Your task to perform on an android device: Check the news Image 0: 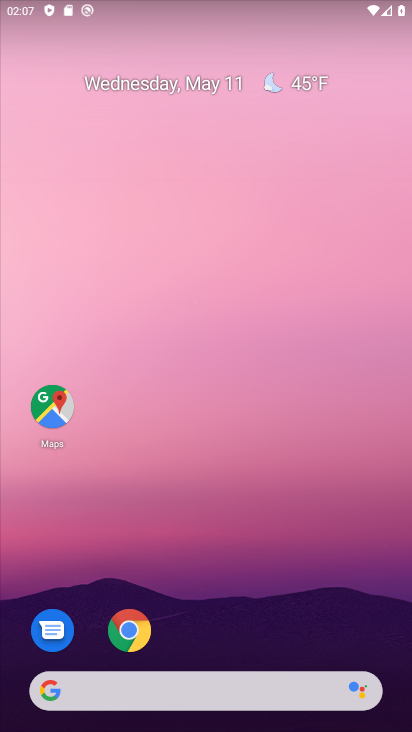
Step 0: drag from (6, 259) to (404, 407)
Your task to perform on an android device: Check the news Image 1: 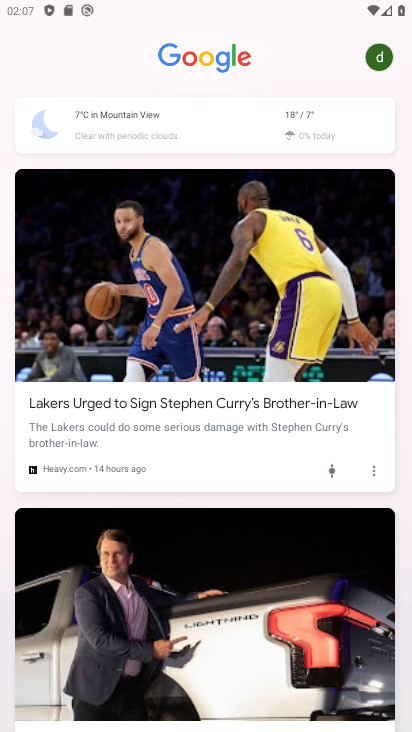
Step 1: task complete